Your task to perform on an android device: turn off notifications settings in the gmail app Image 0: 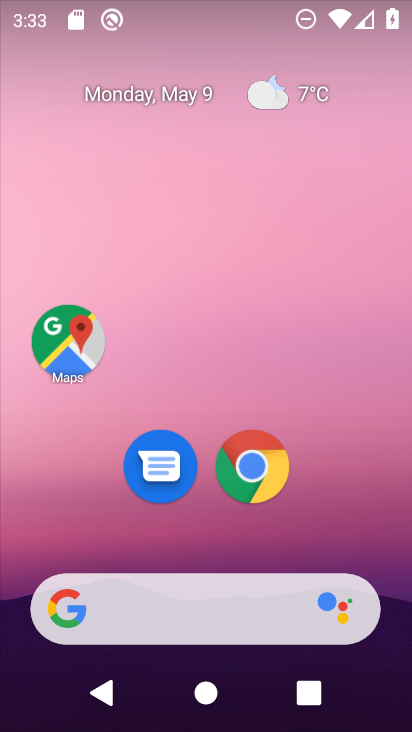
Step 0: press home button
Your task to perform on an android device: turn off notifications settings in the gmail app Image 1: 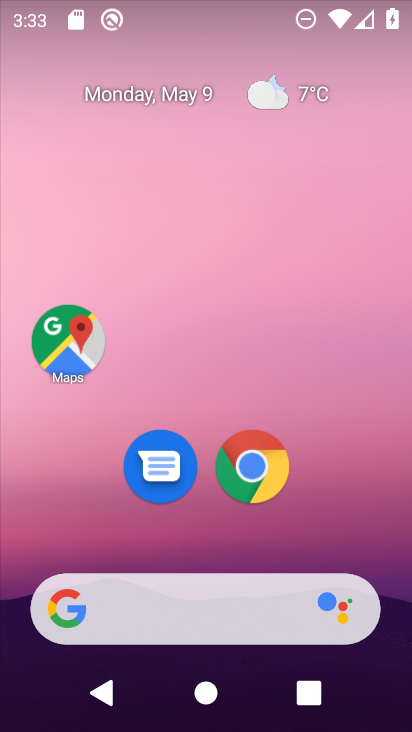
Step 1: drag from (22, 596) to (263, 217)
Your task to perform on an android device: turn off notifications settings in the gmail app Image 2: 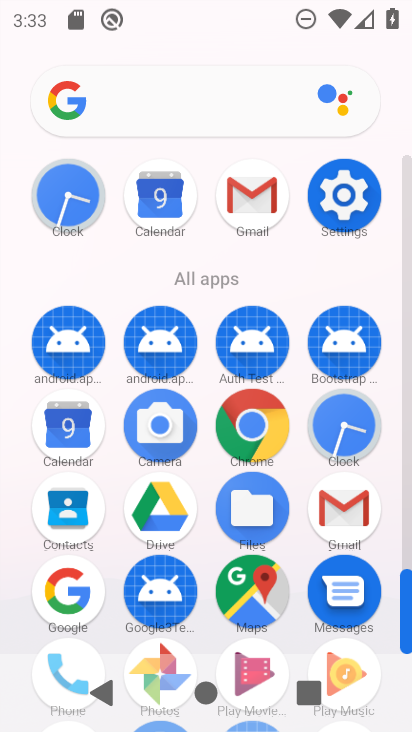
Step 2: click (247, 209)
Your task to perform on an android device: turn off notifications settings in the gmail app Image 3: 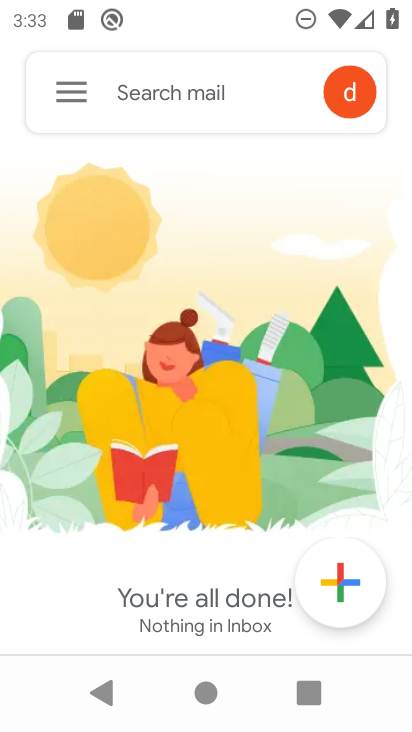
Step 3: click (44, 111)
Your task to perform on an android device: turn off notifications settings in the gmail app Image 4: 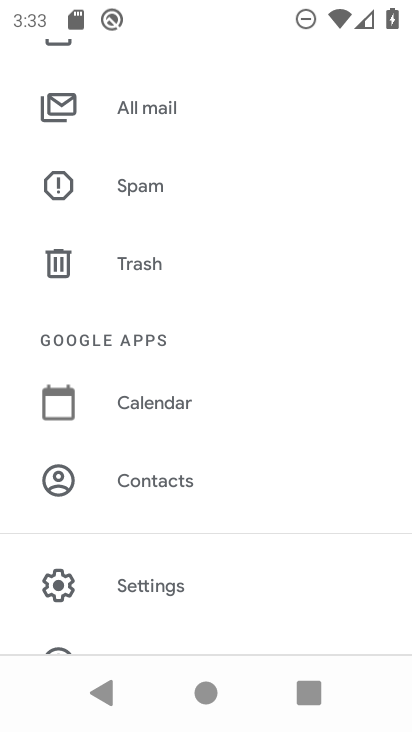
Step 4: click (98, 580)
Your task to perform on an android device: turn off notifications settings in the gmail app Image 5: 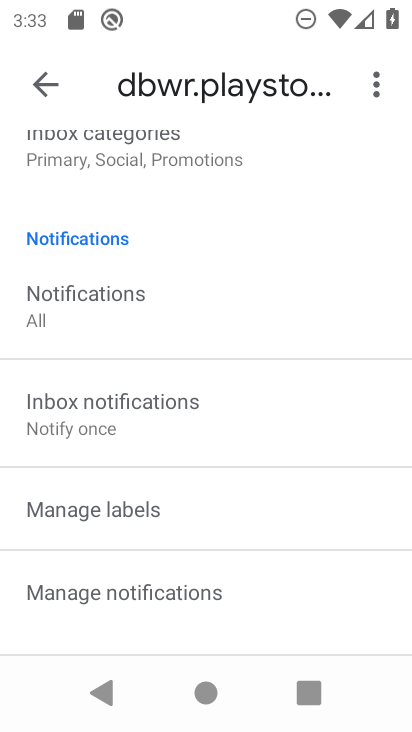
Step 5: drag from (117, 605) to (229, 223)
Your task to perform on an android device: turn off notifications settings in the gmail app Image 6: 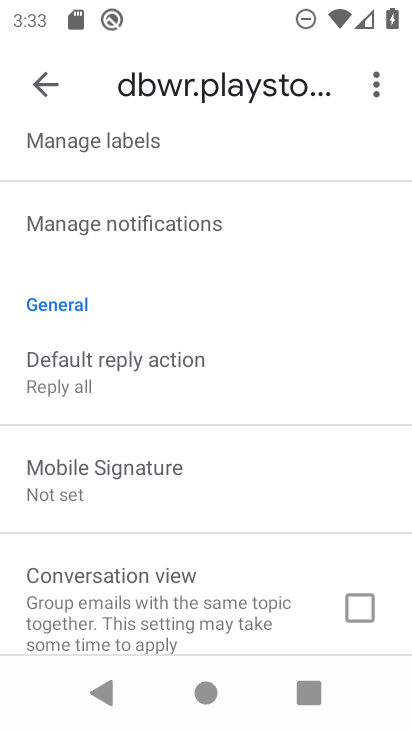
Step 6: click (143, 234)
Your task to perform on an android device: turn off notifications settings in the gmail app Image 7: 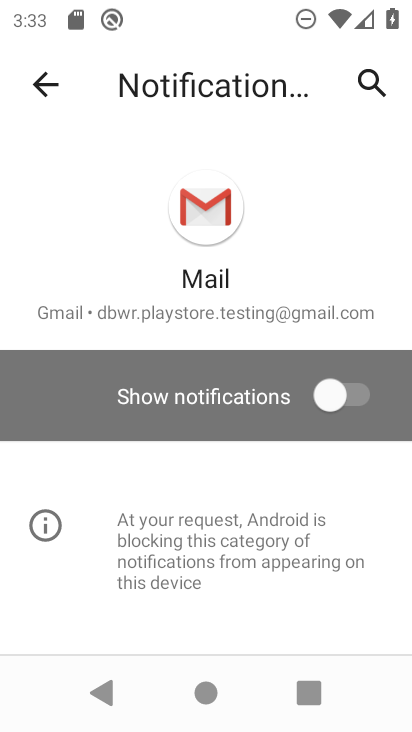
Step 7: click (332, 402)
Your task to perform on an android device: turn off notifications settings in the gmail app Image 8: 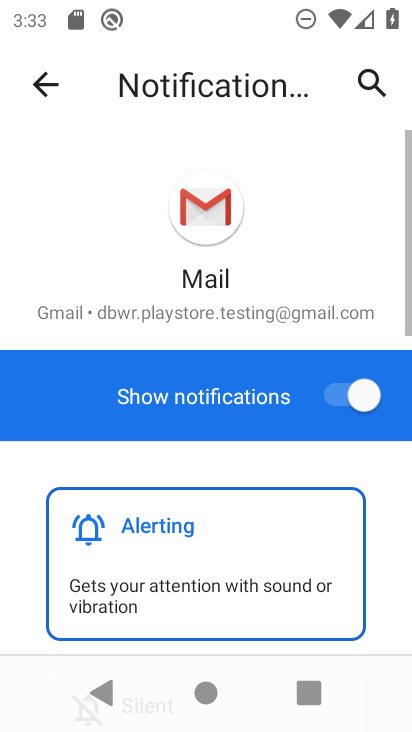
Step 8: click (351, 393)
Your task to perform on an android device: turn off notifications settings in the gmail app Image 9: 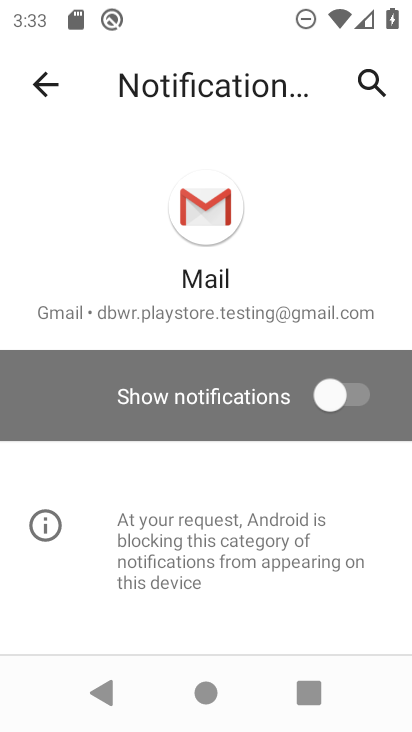
Step 9: task complete